Your task to perform on an android device: Show me recent news Image 0: 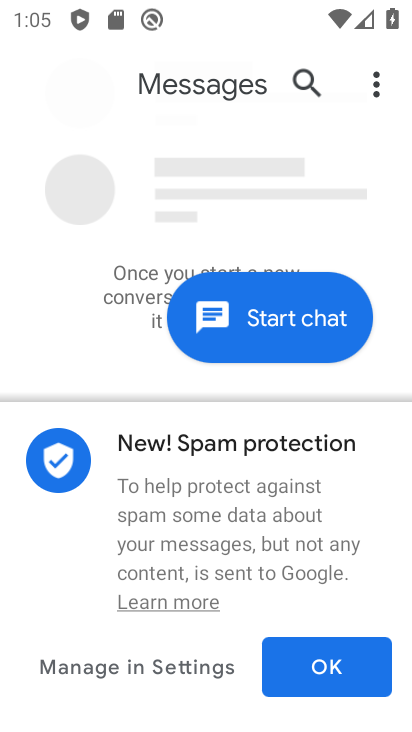
Step 0: press home button
Your task to perform on an android device: Show me recent news Image 1: 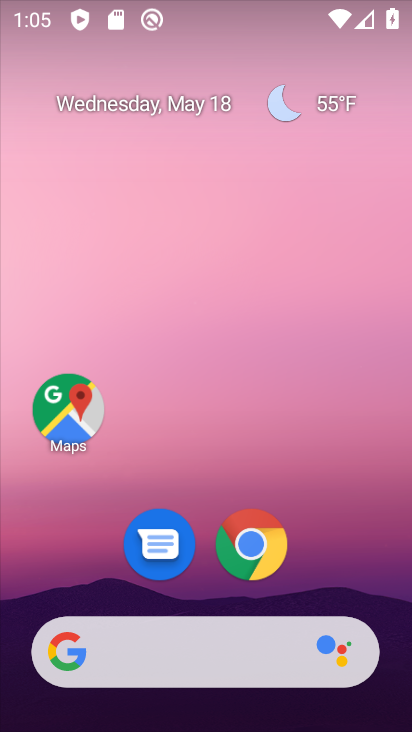
Step 1: click (130, 667)
Your task to perform on an android device: Show me recent news Image 2: 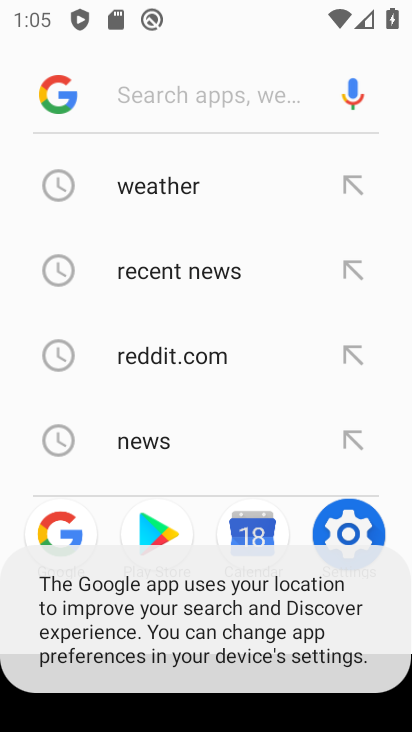
Step 2: click (178, 265)
Your task to perform on an android device: Show me recent news Image 3: 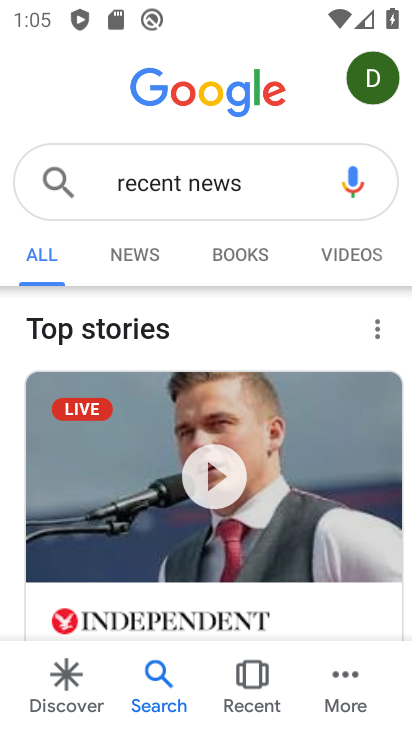
Step 3: click (126, 246)
Your task to perform on an android device: Show me recent news Image 4: 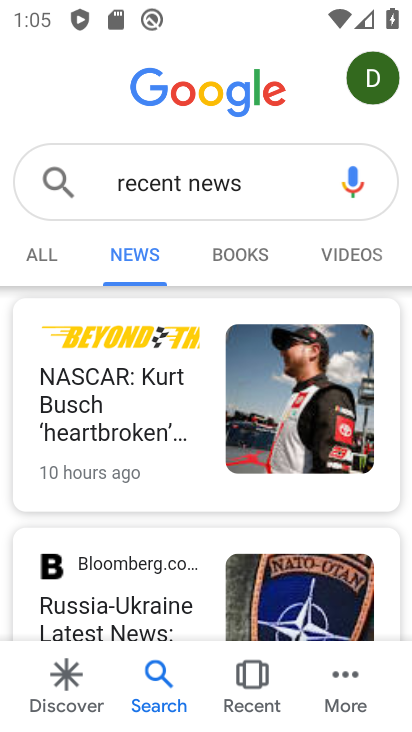
Step 4: task complete